Your task to perform on an android device: toggle data saver in the chrome app Image 0: 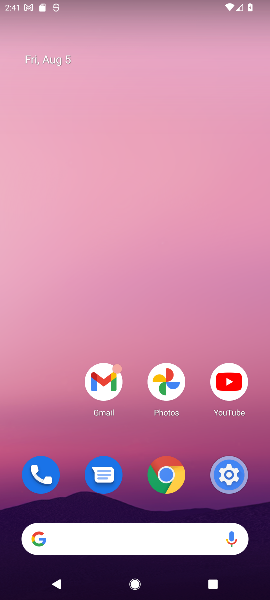
Step 0: click (167, 469)
Your task to perform on an android device: toggle data saver in the chrome app Image 1: 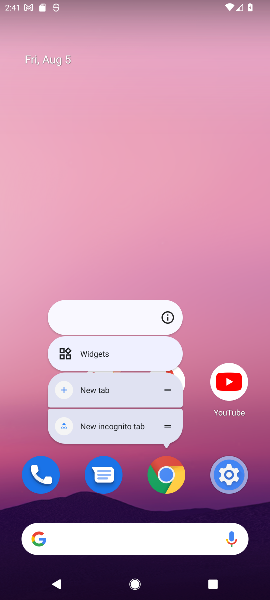
Step 1: click (167, 464)
Your task to perform on an android device: toggle data saver in the chrome app Image 2: 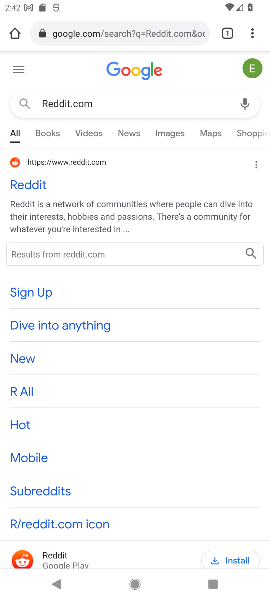
Step 2: click (251, 31)
Your task to perform on an android device: toggle data saver in the chrome app Image 3: 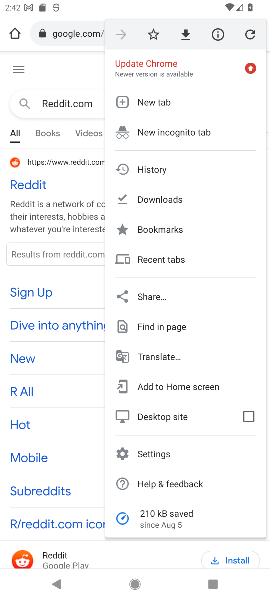
Step 3: click (165, 453)
Your task to perform on an android device: toggle data saver in the chrome app Image 4: 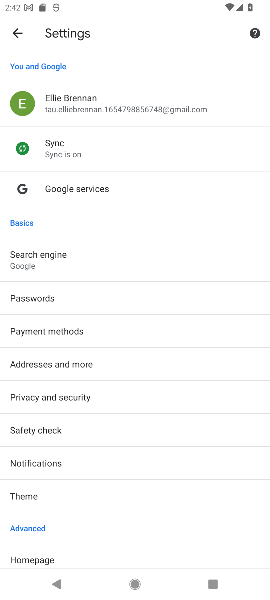
Step 4: drag from (131, 513) to (82, 332)
Your task to perform on an android device: toggle data saver in the chrome app Image 5: 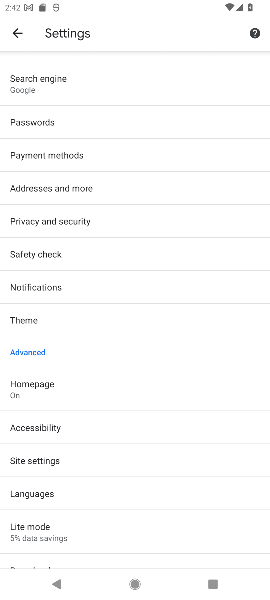
Step 5: click (90, 550)
Your task to perform on an android device: toggle data saver in the chrome app Image 6: 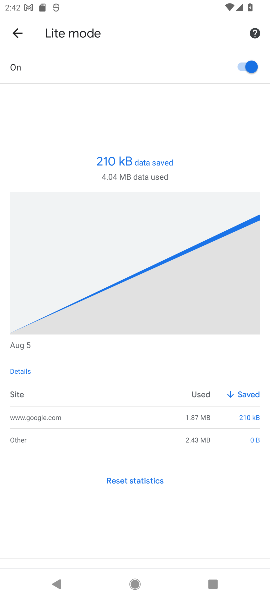
Step 6: click (237, 68)
Your task to perform on an android device: toggle data saver in the chrome app Image 7: 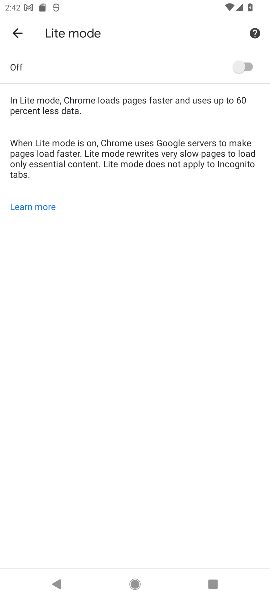
Step 7: task complete